Your task to perform on an android device: Open location settings Image 0: 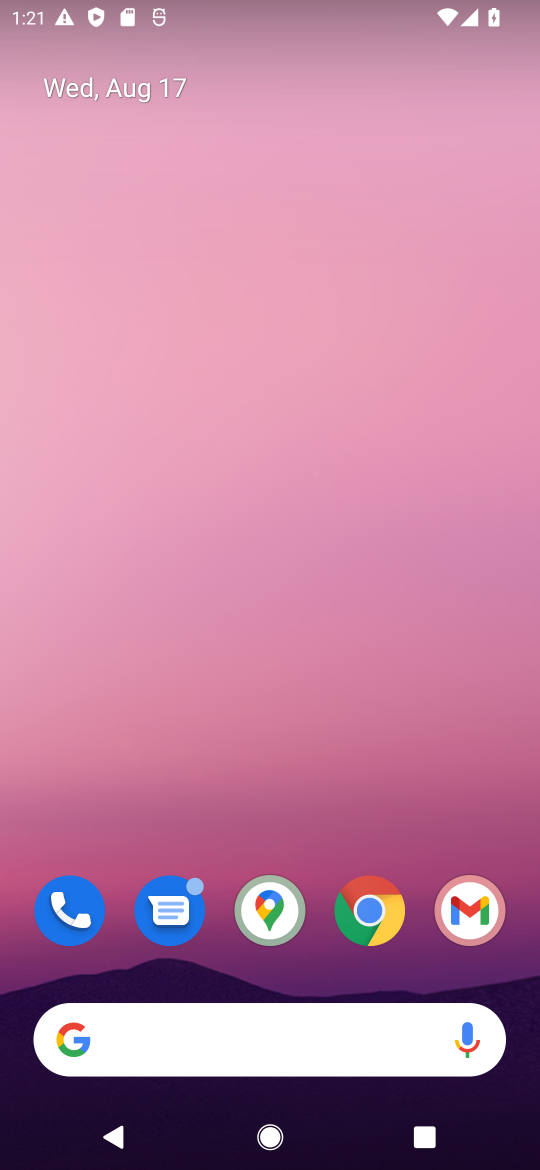
Step 0: drag from (269, 972) to (433, 48)
Your task to perform on an android device: Open location settings Image 1: 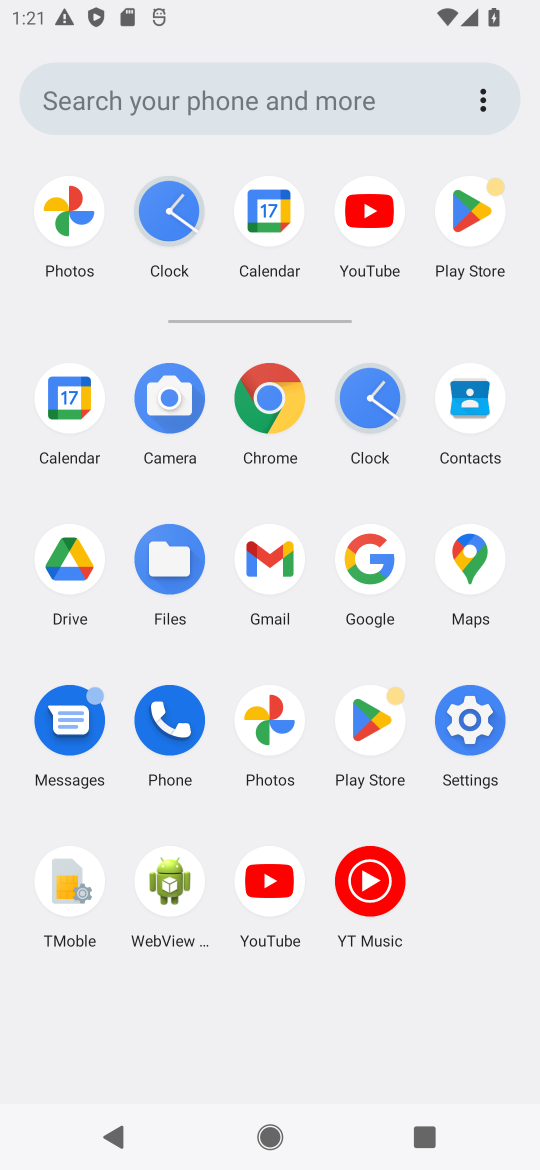
Step 1: click (455, 730)
Your task to perform on an android device: Open location settings Image 2: 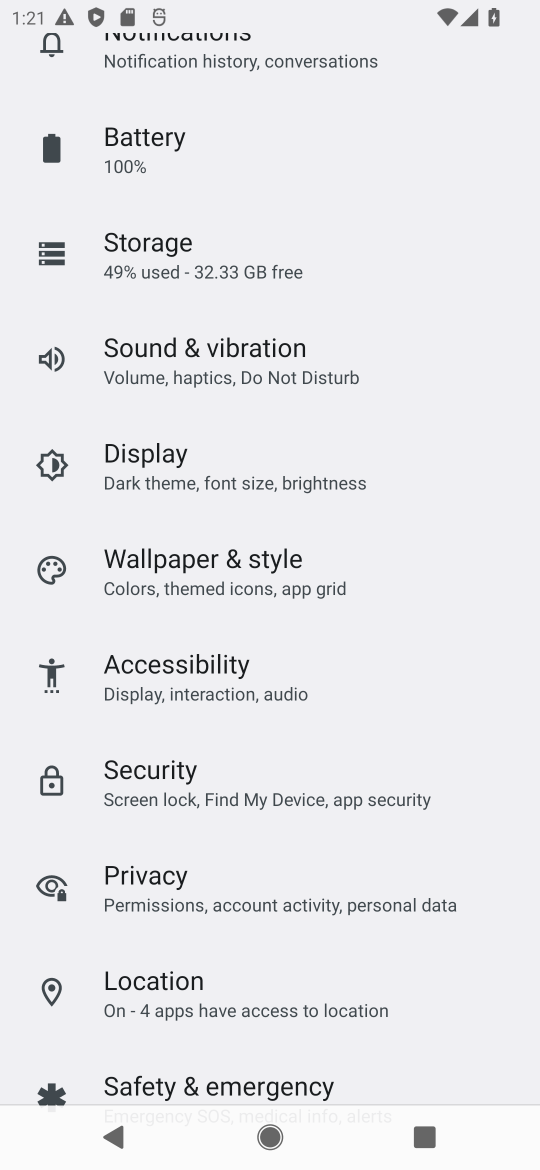
Step 2: click (172, 1009)
Your task to perform on an android device: Open location settings Image 3: 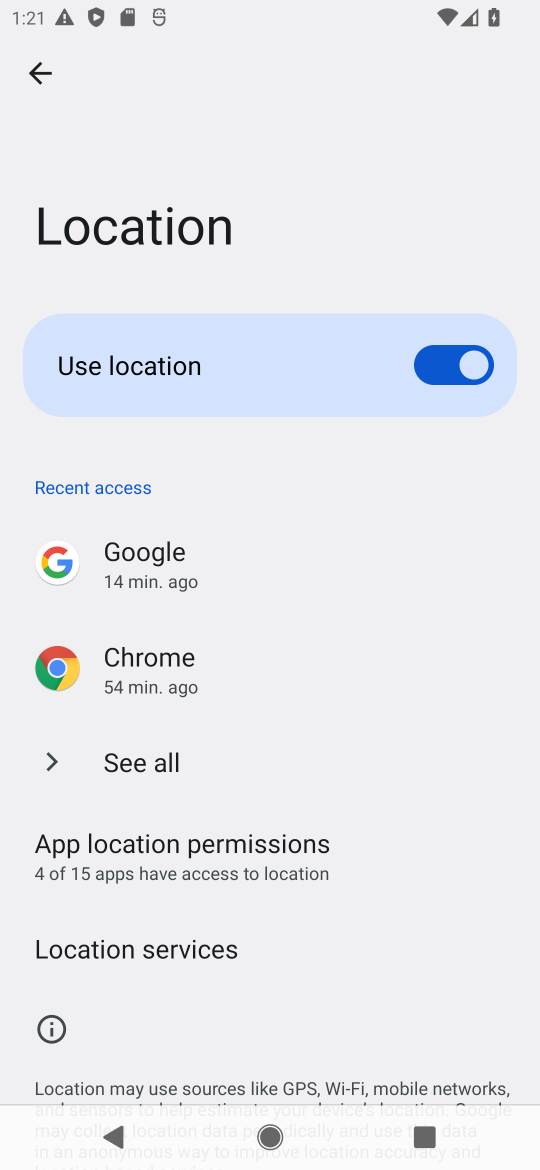
Step 3: task complete